Your task to perform on an android device: Open CNN.com Image 0: 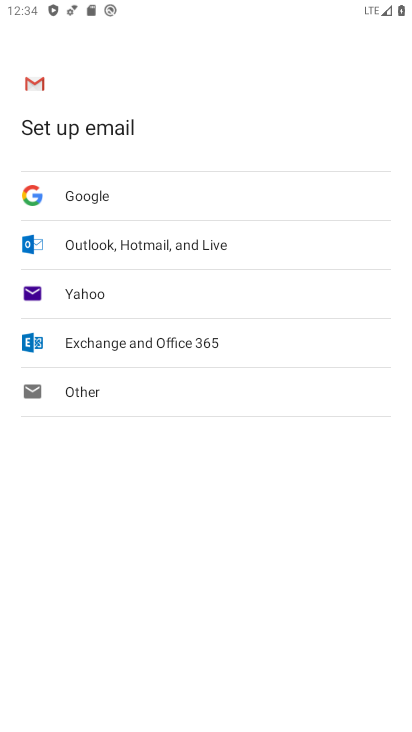
Step 0: press home button
Your task to perform on an android device: Open CNN.com Image 1: 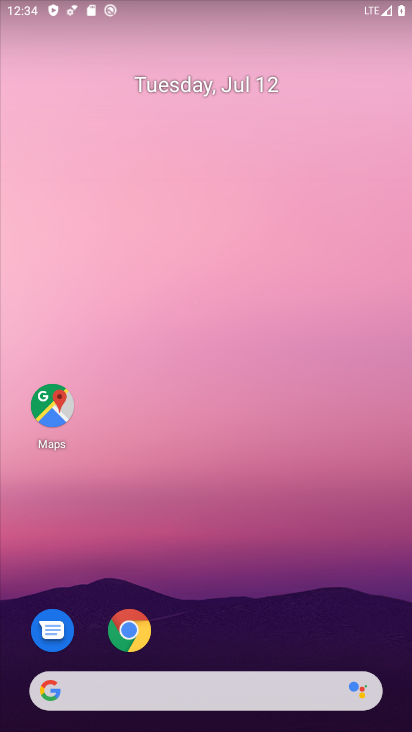
Step 1: click (132, 632)
Your task to perform on an android device: Open CNN.com Image 2: 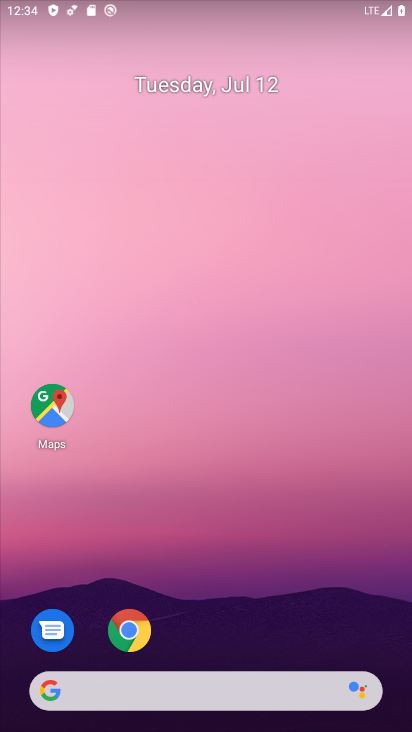
Step 2: click (132, 632)
Your task to perform on an android device: Open CNN.com Image 3: 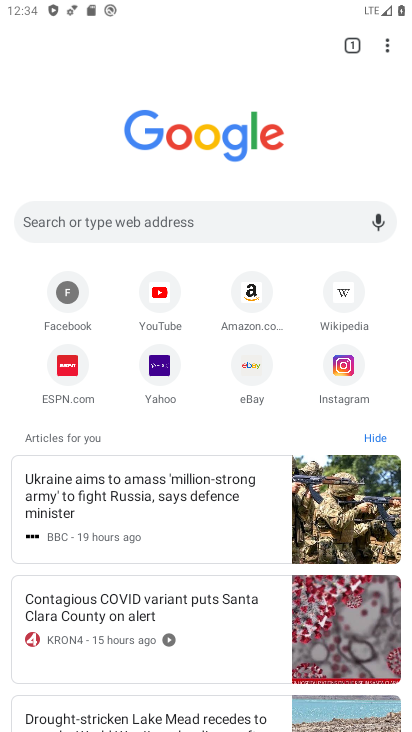
Step 3: click (159, 219)
Your task to perform on an android device: Open CNN.com Image 4: 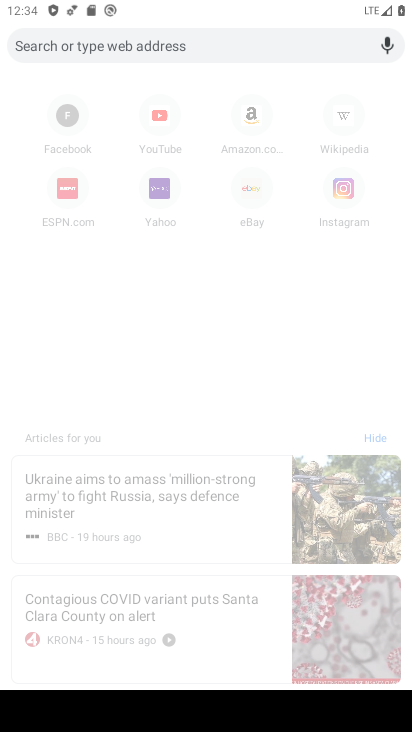
Step 4: type "CNN.com"
Your task to perform on an android device: Open CNN.com Image 5: 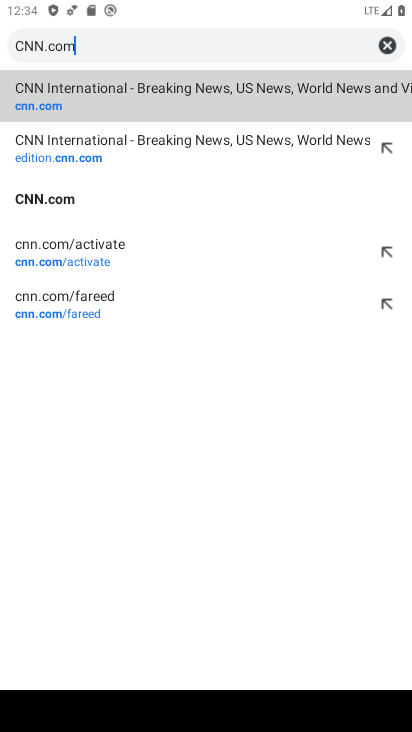
Step 5: click (98, 99)
Your task to perform on an android device: Open CNN.com Image 6: 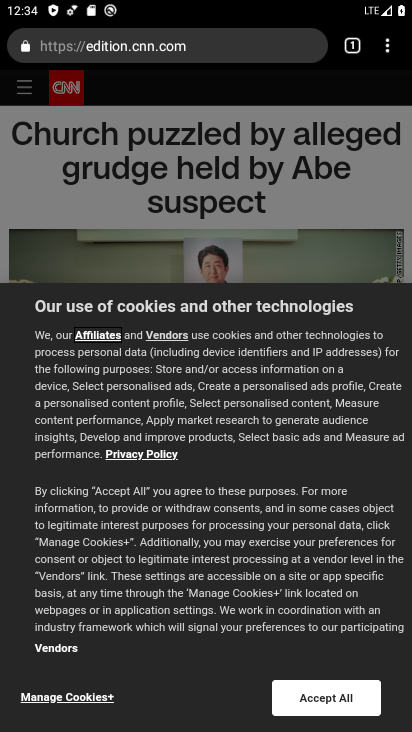
Step 6: task complete